Your task to perform on an android device: check storage Image 0: 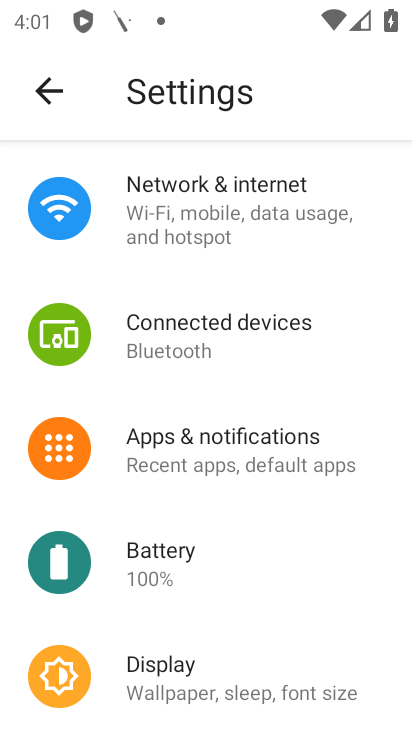
Step 0: drag from (222, 625) to (308, 128)
Your task to perform on an android device: check storage Image 1: 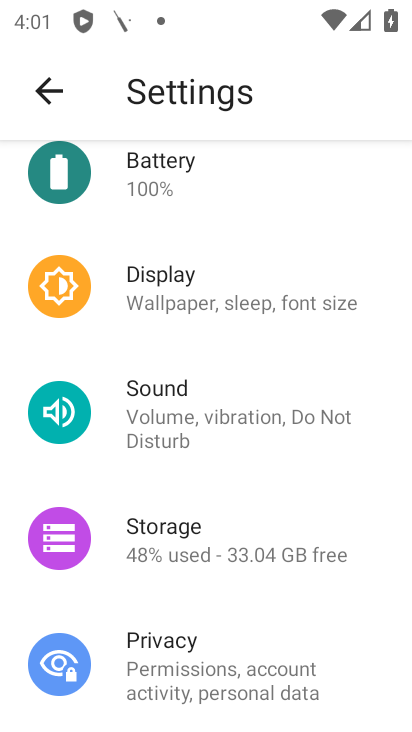
Step 1: click (172, 546)
Your task to perform on an android device: check storage Image 2: 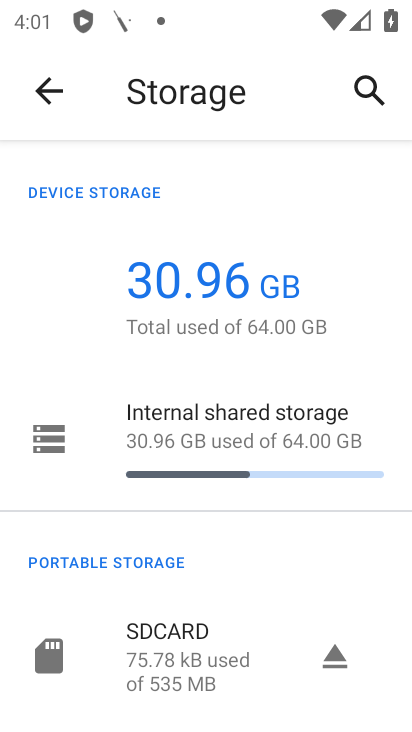
Step 2: task complete